Your task to perform on an android device: turn off location history Image 0: 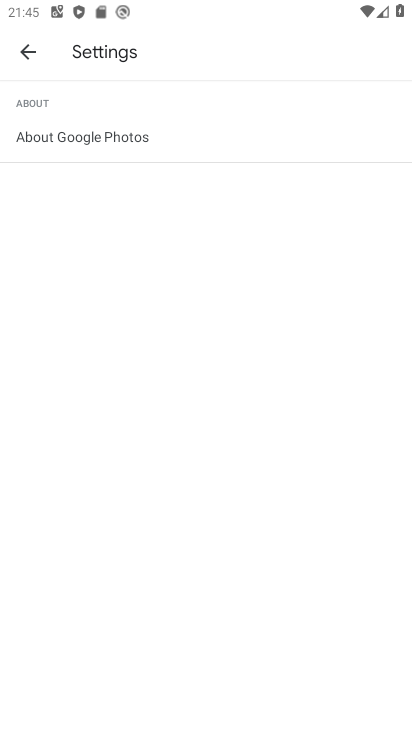
Step 0: press home button
Your task to perform on an android device: turn off location history Image 1: 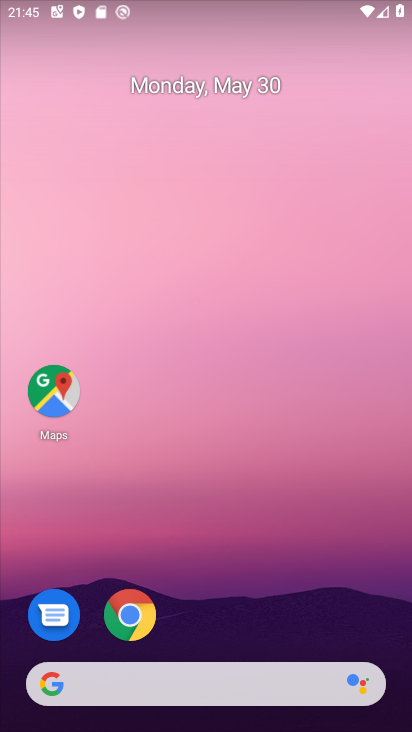
Step 1: drag from (244, 615) to (165, 216)
Your task to perform on an android device: turn off location history Image 2: 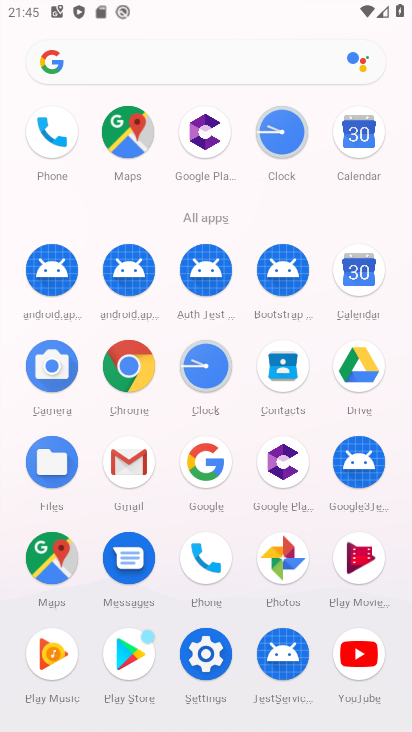
Step 2: click (136, 149)
Your task to perform on an android device: turn off location history Image 3: 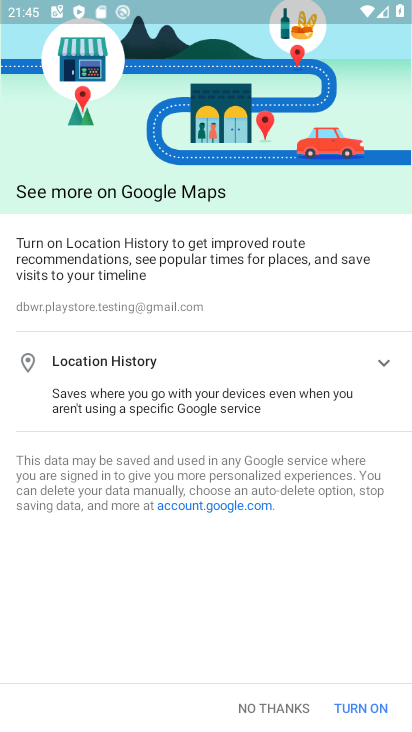
Step 3: click (290, 708)
Your task to perform on an android device: turn off location history Image 4: 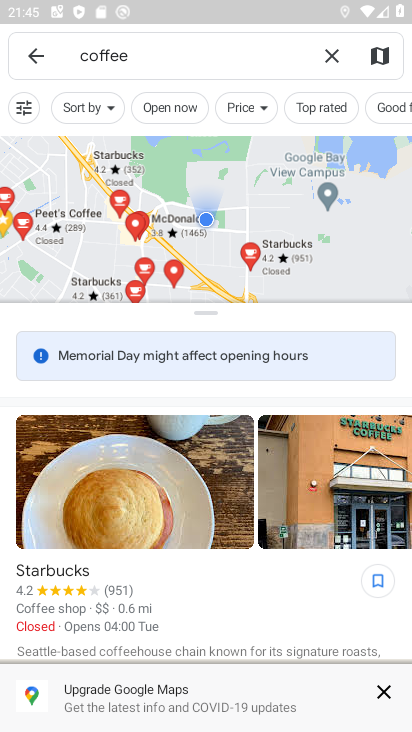
Step 4: click (25, 57)
Your task to perform on an android device: turn off location history Image 5: 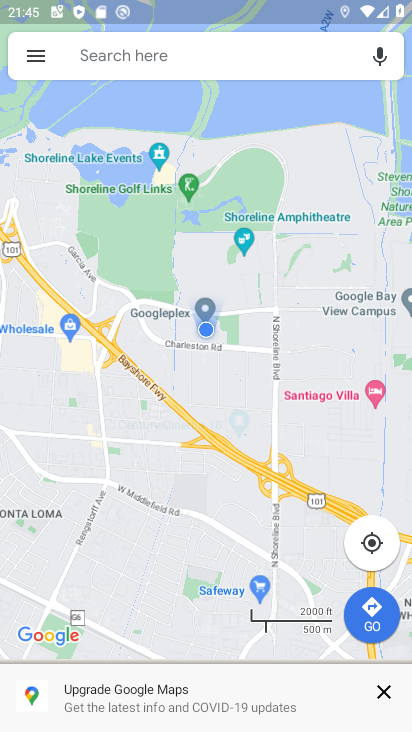
Step 5: click (25, 57)
Your task to perform on an android device: turn off location history Image 6: 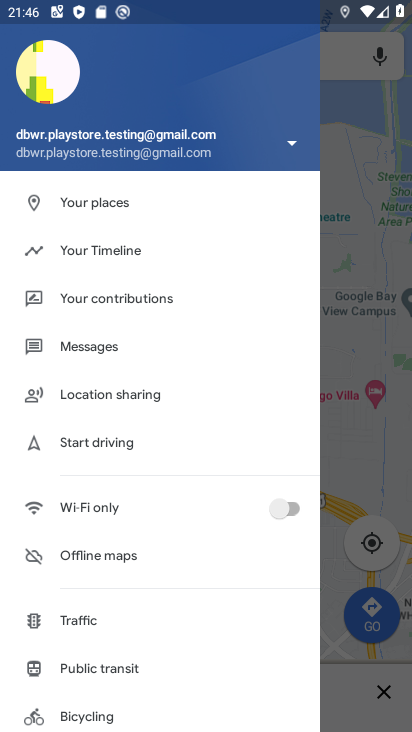
Step 6: click (102, 247)
Your task to perform on an android device: turn off location history Image 7: 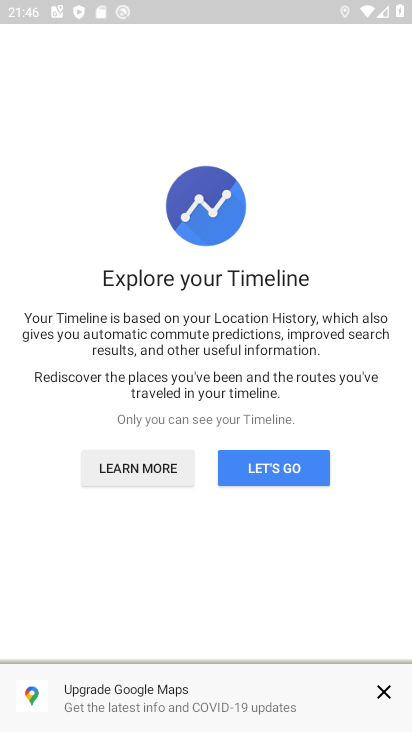
Step 7: click (244, 464)
Your task to perform on an android device: turn off location history Image 8: 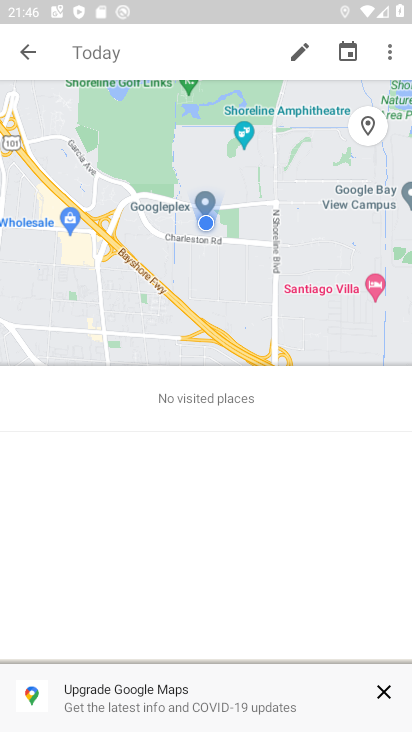
Step 8: click (388, 56)
Your task to perform on an android device: turn off location history Image 9: 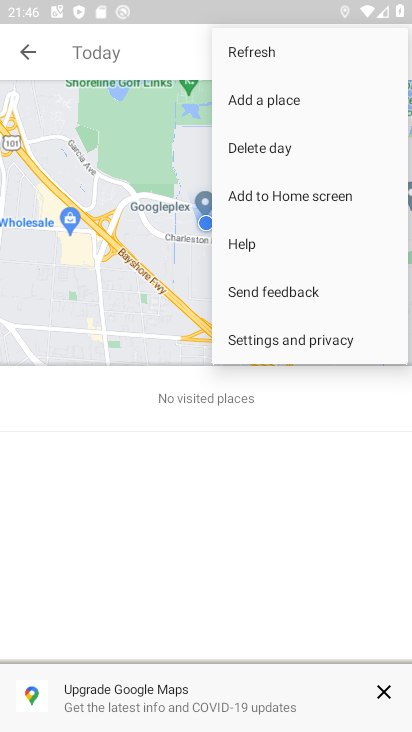
Step 9: click (344, 341)
Your task to perform on an android device: turn off location history Image 10: 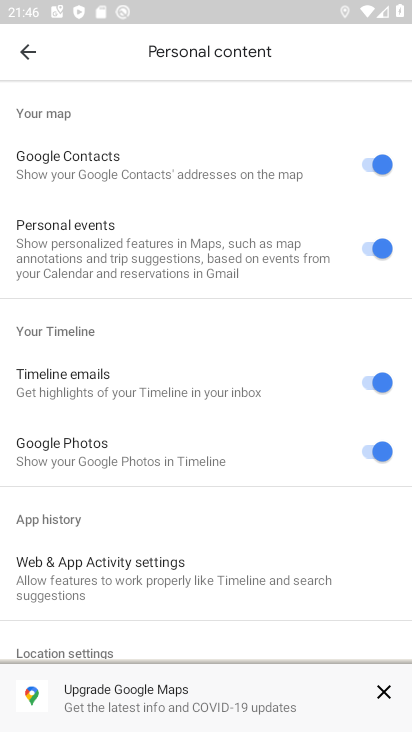
Step 10: task complete